Your task to perform on an android device: turn on improve location accuracy Image 0: 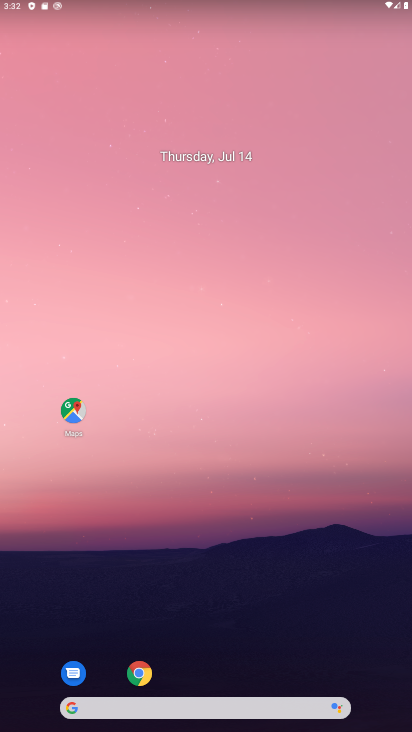
Step 0: press home button
Your task to perform on an android device: turn on improve location accuracy Image 1: 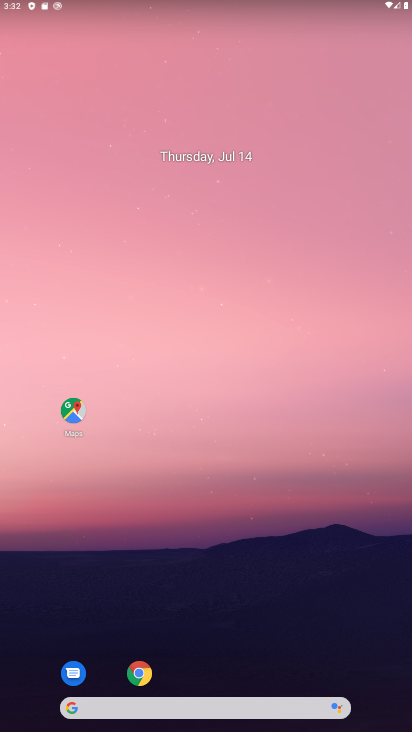
Step 1: drag from (211, 679) to (228, 0)
Your task to perform on an android device: turn on improve location accuracy Image 2: 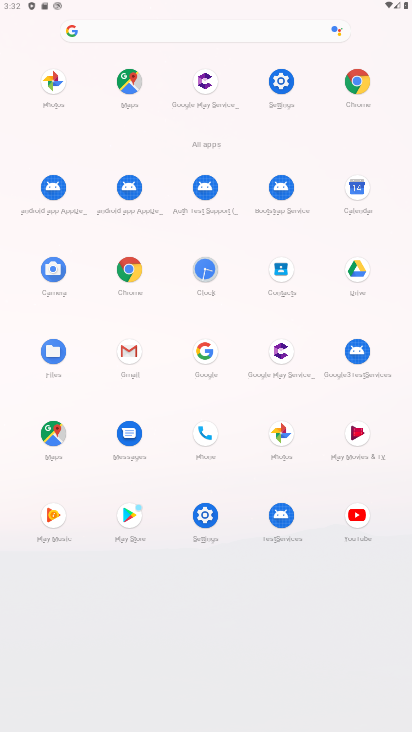
Step 2: click (278, 83)
Your task to perform on an android device: turn on improve location accuracy Image 3: 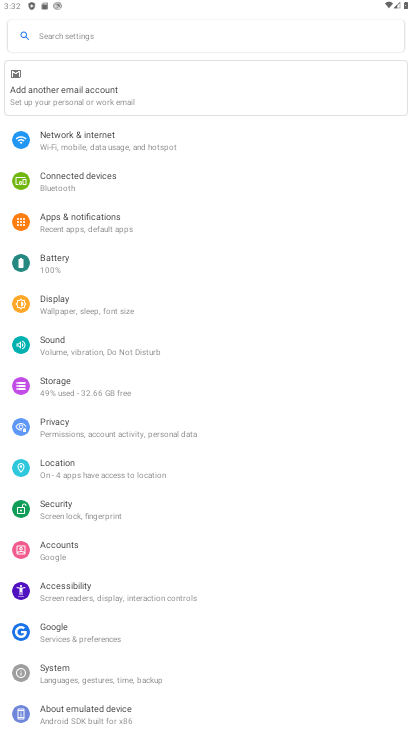
Step 3: click (78, 459)
Your task to perform on an android device: turn on improve location accuracy Image 4: 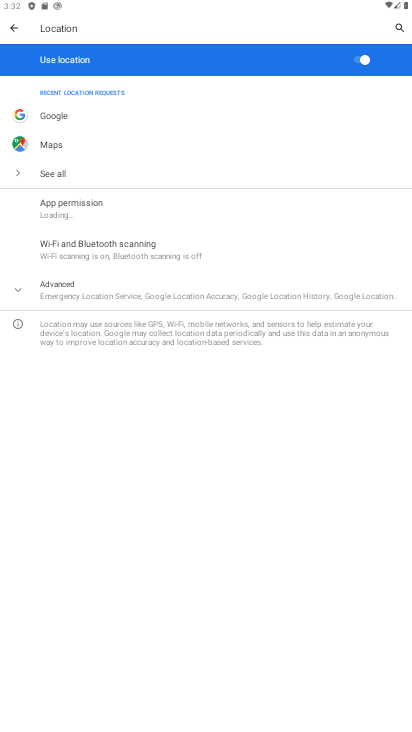
Step 4: click (26, 281)
Your task to perform on an android device: turn on improve location accuracy Image 5: 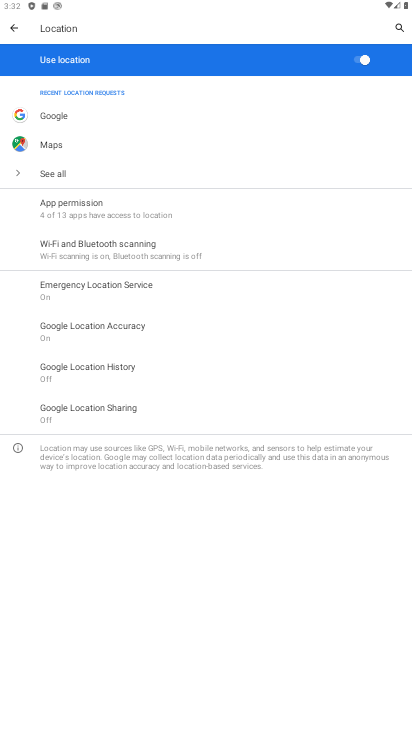
Step 5: click (126, 333)
Your task to perform on an android device: turn on improve location accuracy Image 6: 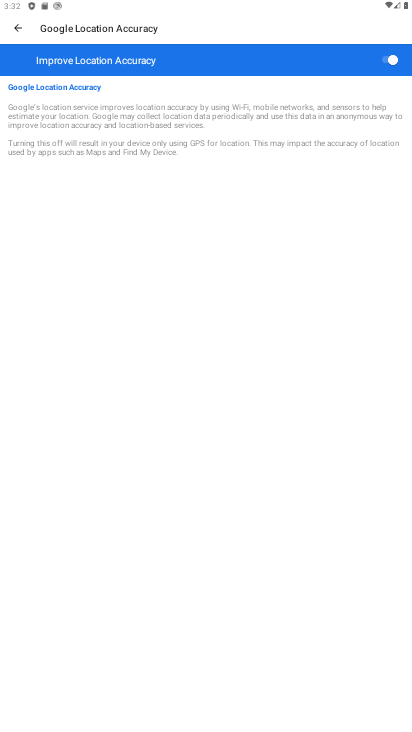
Step 6: task complete